Your task to perform on an android device: Open battery settings Image 0: 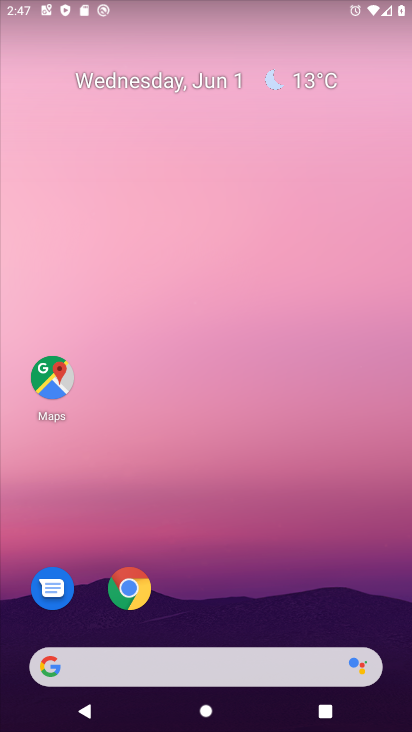
Step 0: drag from (201, 582) to (241, 201)
Your task to perform on an android device: Open battery settings Image 1: 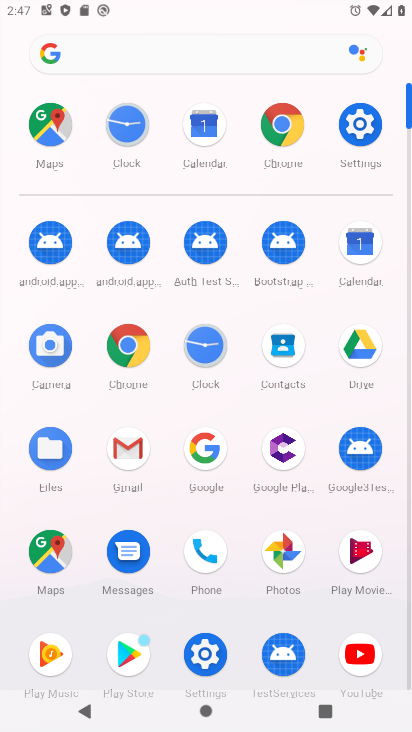
Step 1: click (357, 121)
Your task to perform on an android device: Open battery settings Image 2: 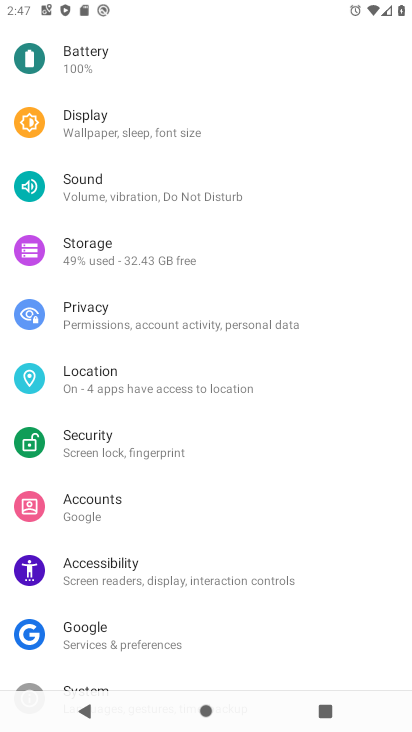
Step 2: click (106, 57)
Your task to perform on an android device: Open battery settings Image 3: 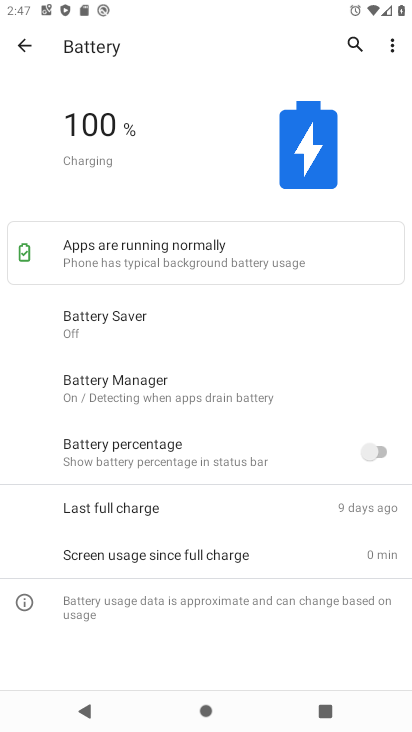
Step 3: task complete